Your task to perform on an android device: turn on the 12-hour format for clock Image 0: 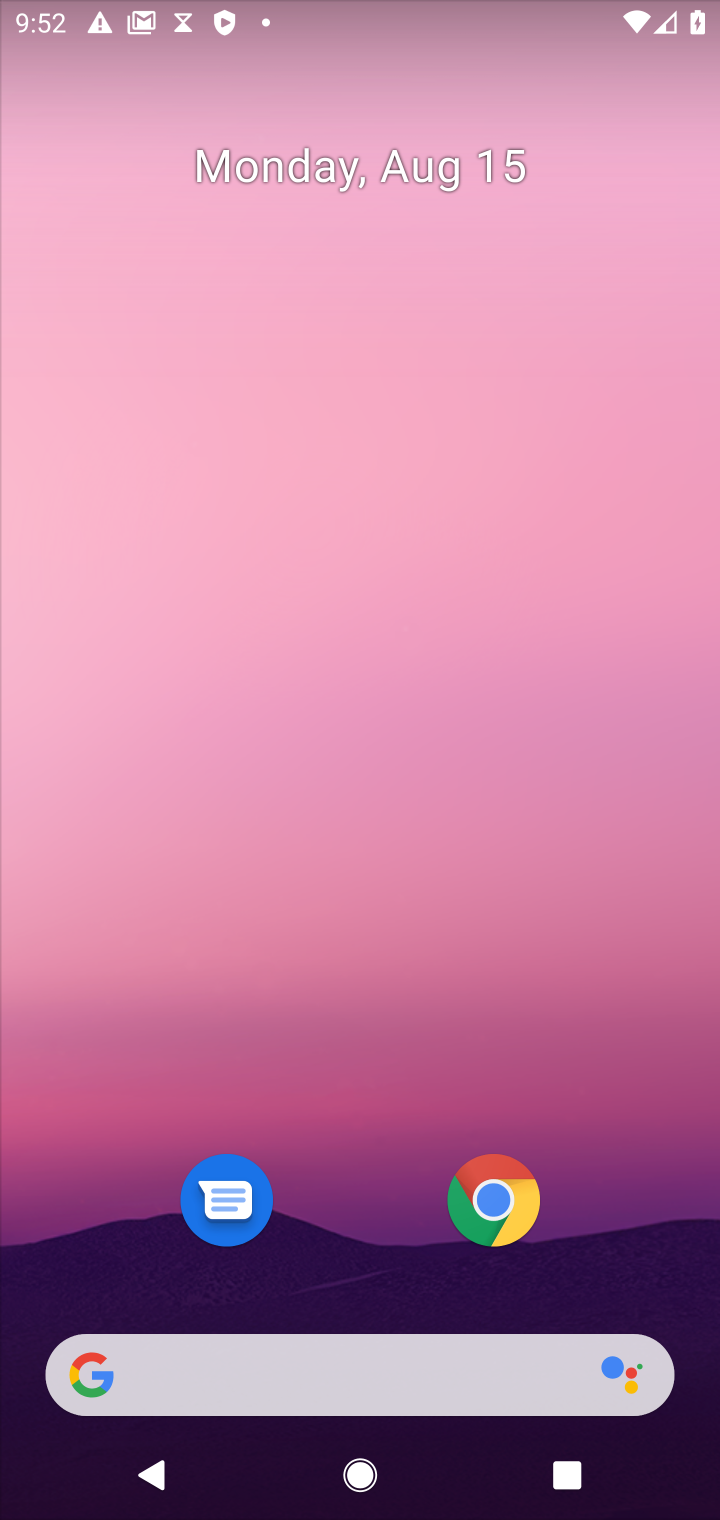
Step 0: drag from (343, 1211) to (372, 409)
Your task to perform on an android device: turn on the 12-hour format for clock Image 1: 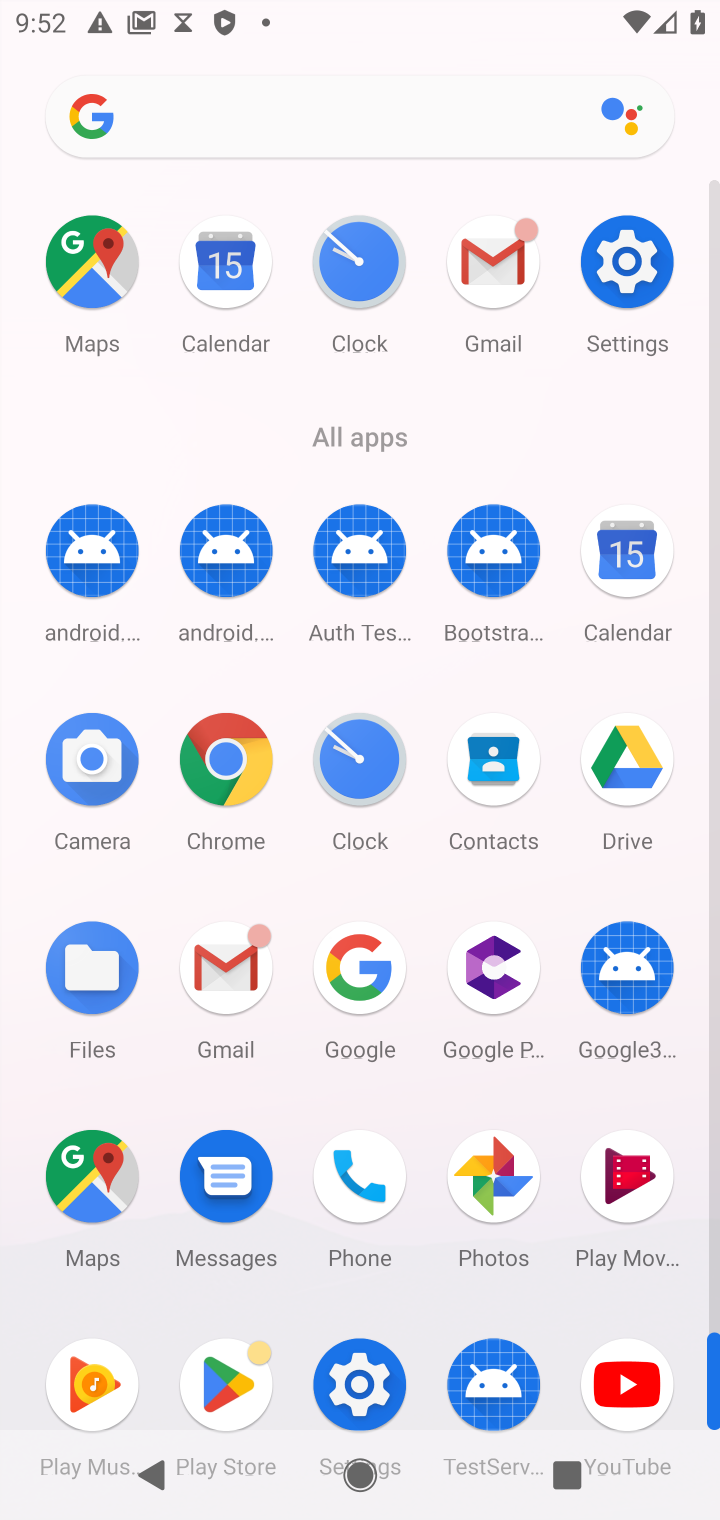
Step 1: click (346, 250)
Your task to perform on an android device: turn on the 12-hour format for clock Image 2: 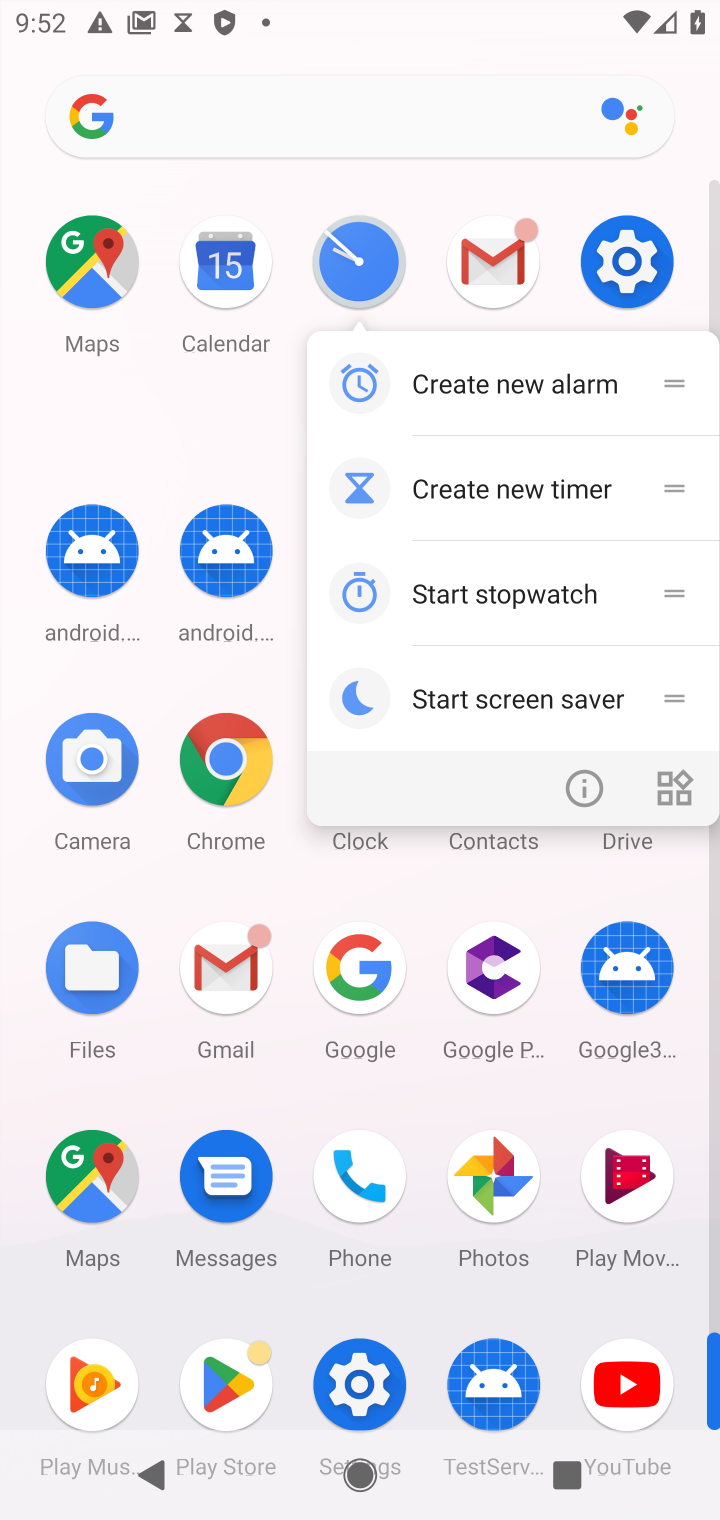
Step 2: click (346, 250)
Your task to perform on an android device: turn on the 12-hour format for clock Image 3: 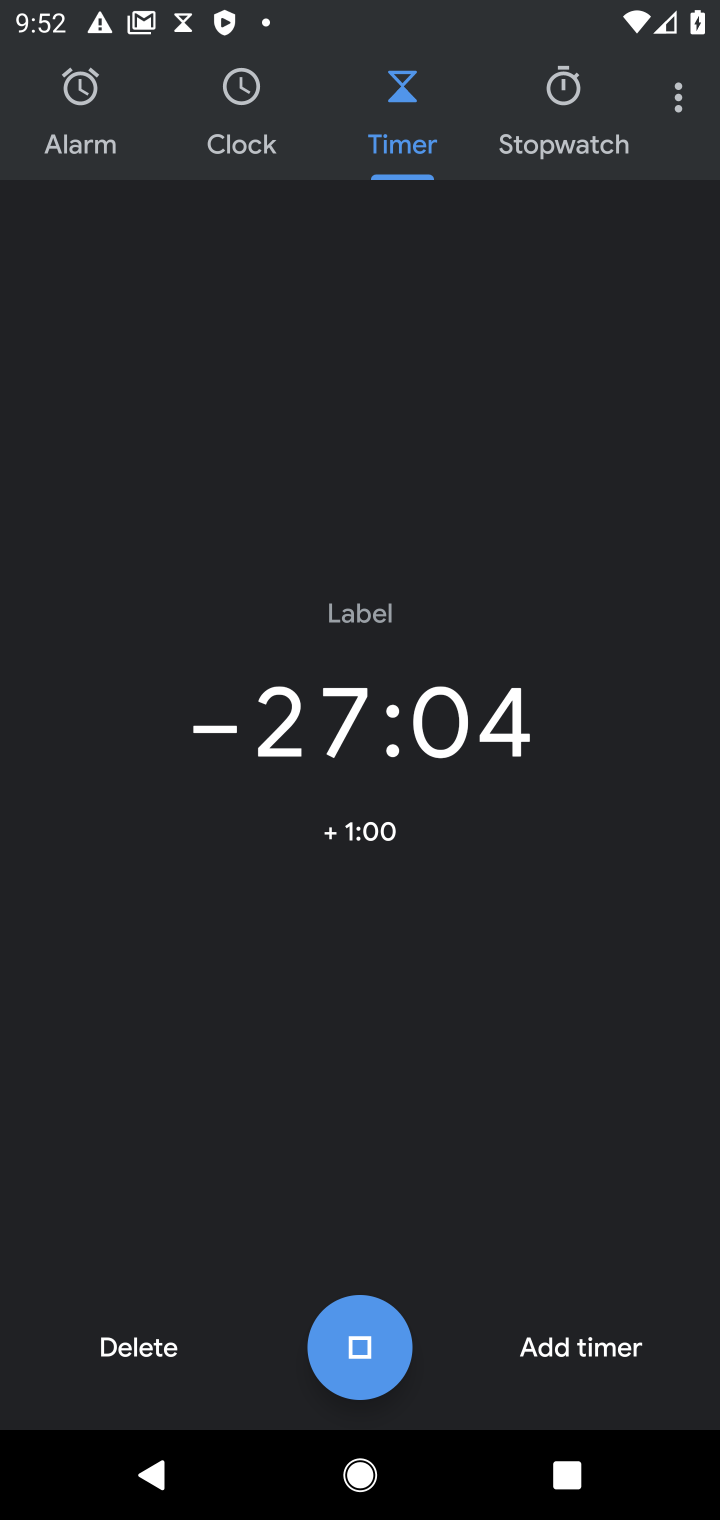
Step 3: click (684, 87)
Your task to perform on an android device: turn on the 12-hour format for clock Image 4: 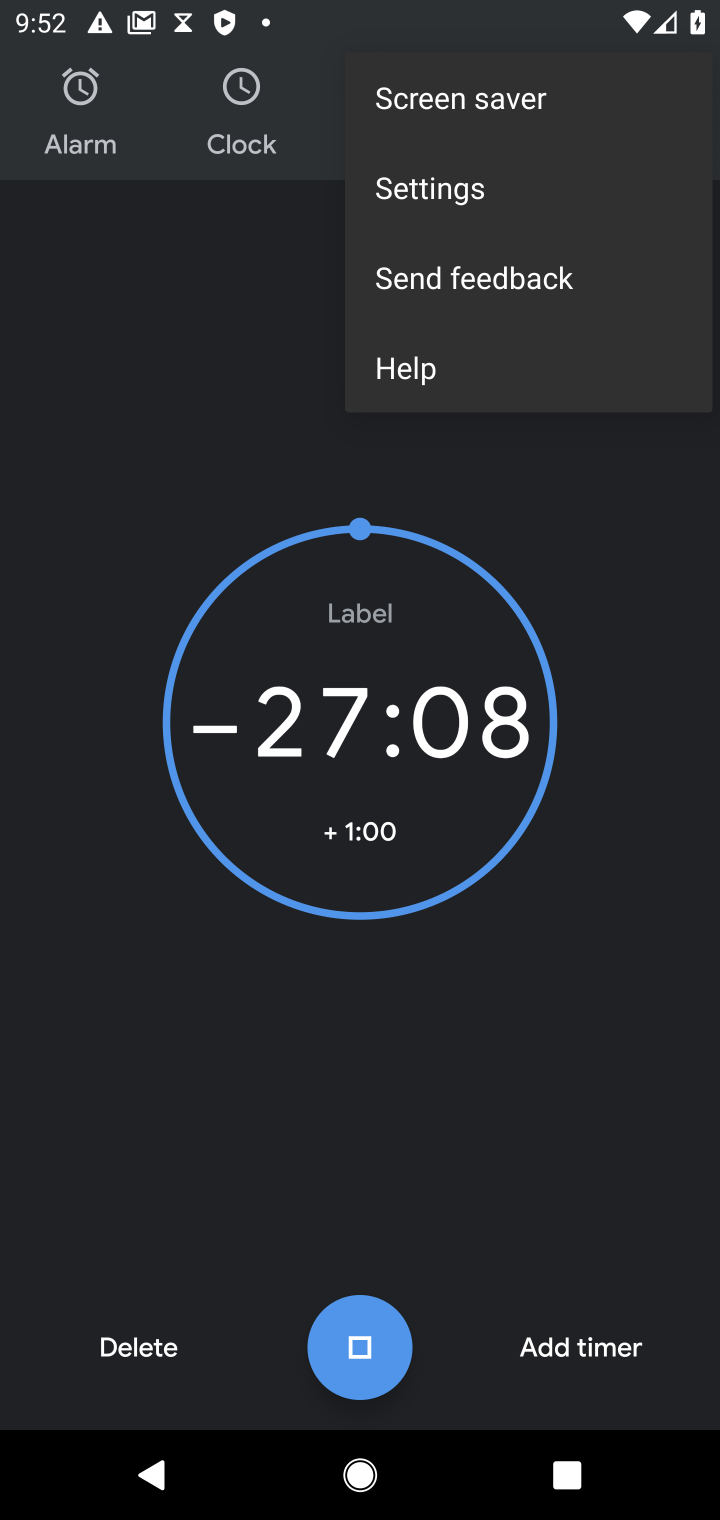
Step 4: click (511, 202)
Your task to perform on an android device: turn on the 12-hour format for clock Image 5: 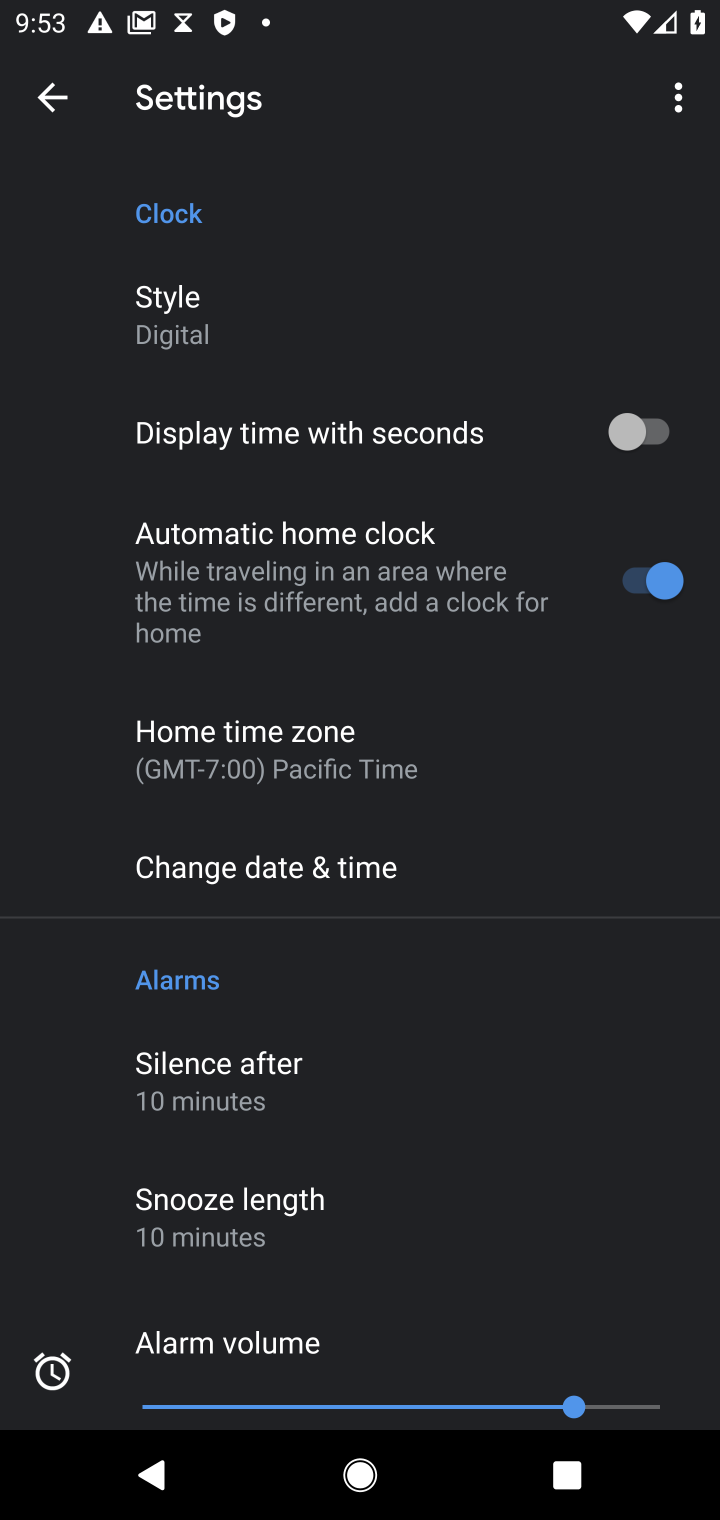
Step 5: click (320, 866)
Your task to perform on an android device: turn on the 12-hour format for clock Image 6: 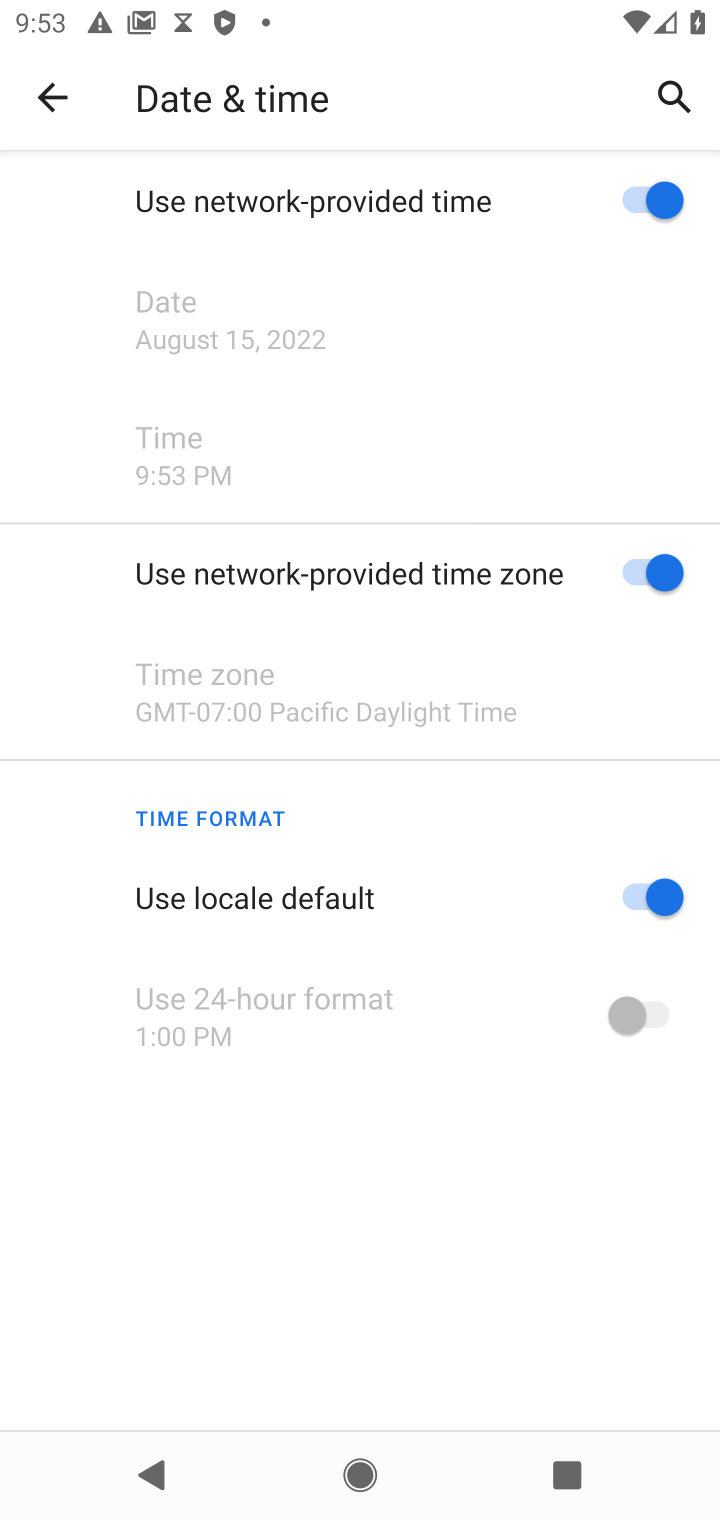
Step 6: task complete